Your task to perform on an android device: Is it going to rain tomorrow? Image 0: 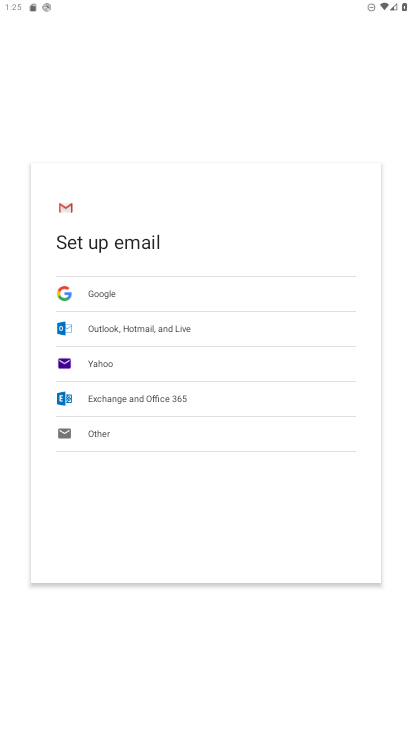
Step 0: press home button
Your task to perform on an android device: Is it going to rain tomorrow? Image 1: 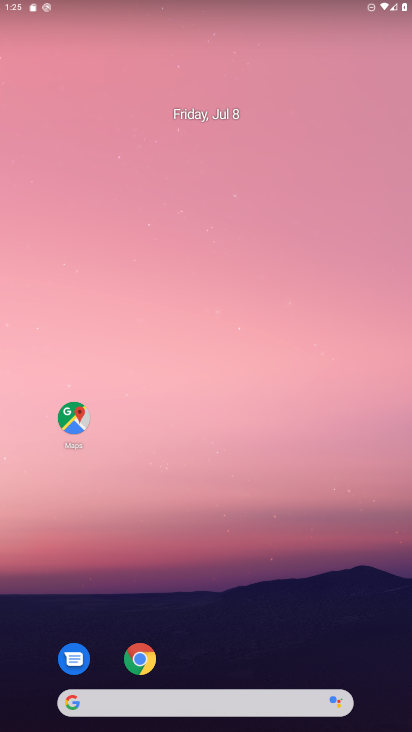
Step 1: drag from (234, 667) to (251, 119)
Your task to perform on an android device: Is it going to rain tomorrow? Image 2: 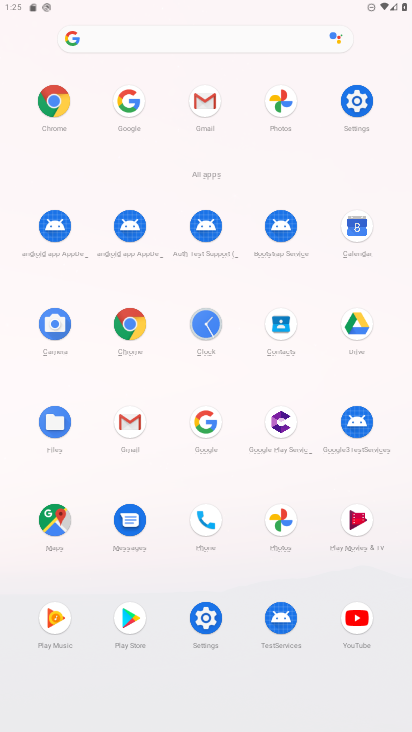
Step 2: click (205, 421)
Your task to perform on an android device: Is it going to rain tomorrow? Image 3: 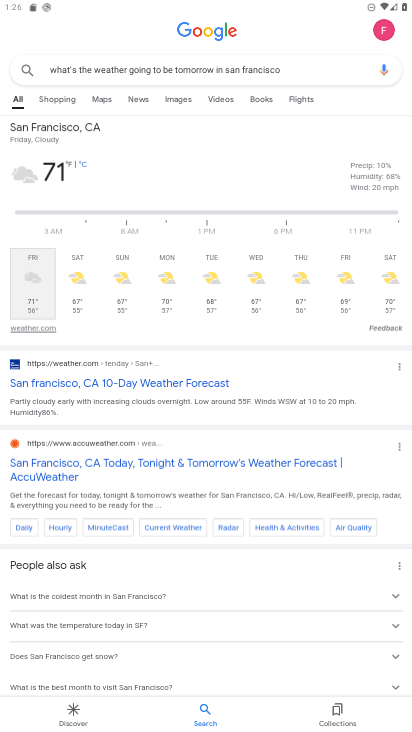
Step 3: click (303, 65)
Your task to perform on an android device: Is it going to rain tomorrow? Image 4: 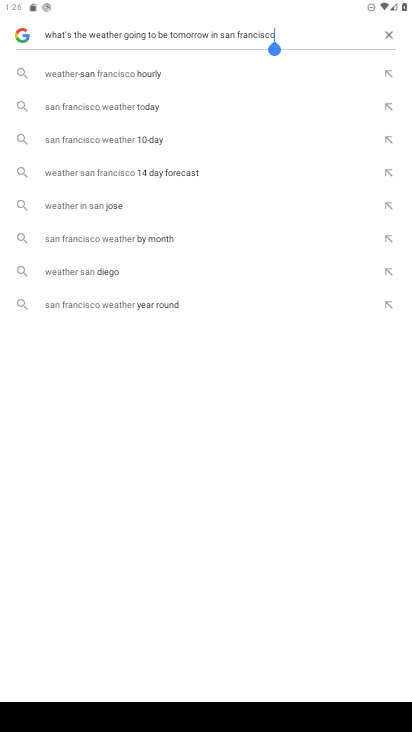
Step 4: click (392, 34)
Your task to perform on an android device: Is it going to rain tomorrow? Image 5: 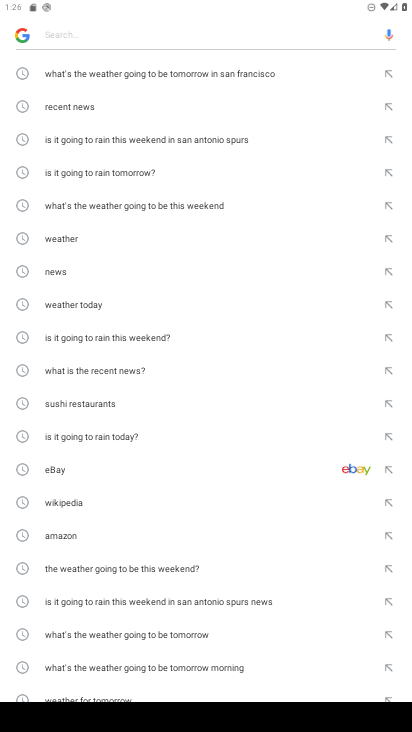
Step 5: click (147, 174)
Your task to perform on an android device: Is it going to rain tomorrow? Image 6: 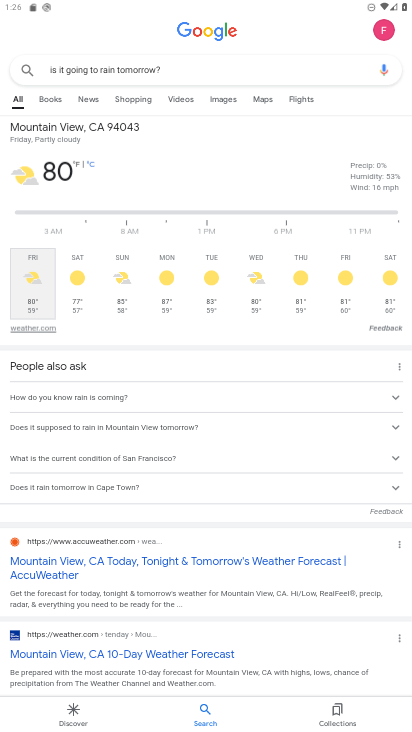
Step 6: task complete